Your task to perform on an android device: Search for pizza restaurants on Maps Image 0: 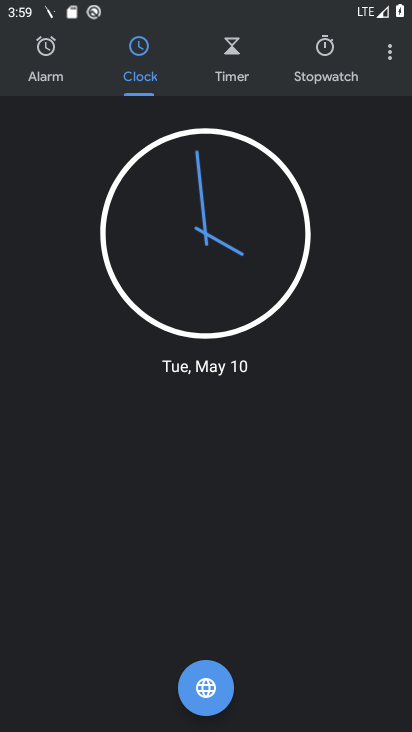
Step 0: press home button
Your task to perform on an android device: Search for pizza restaurants on Maps Image 1: 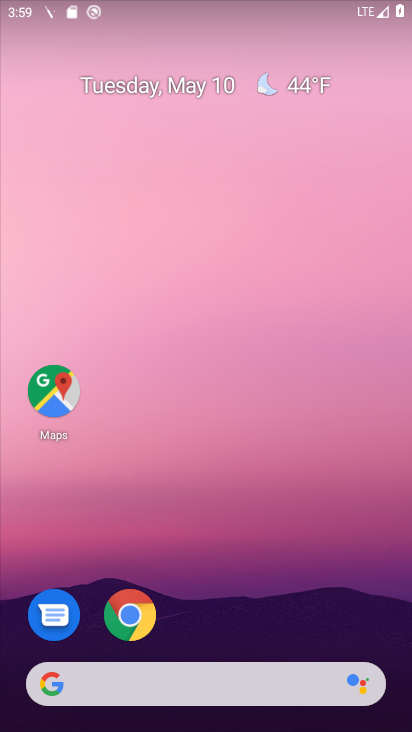
Step 1: drag from (238, 647) to (210, 66)
Your task to perform on an android device: Search for pizza restaurants on Maps Image 2: 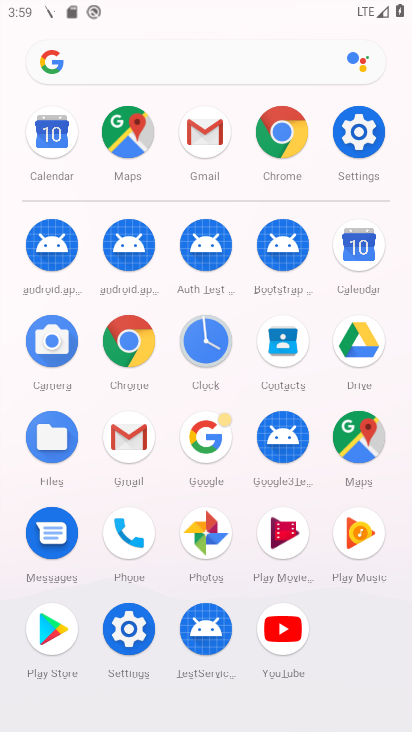
Step 2: click (352, 450)
Your task to perform on an android device: Search for pizza restaurants on Maps Image 3: 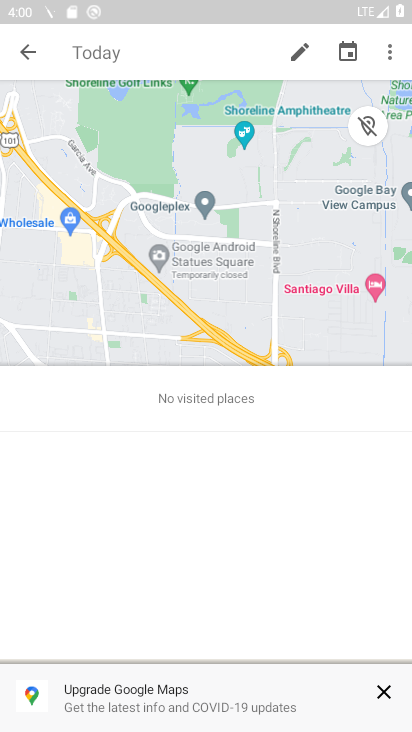
Step 3: press back button
Your task to perform on an android device: Search for pizza restaurants on Maps Image 4: 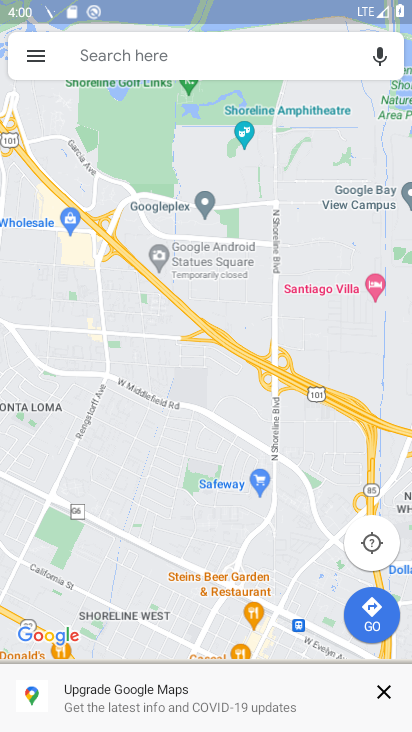
Step 4: click (278, 57)
Your task to perform on an android device: Search for pizza restaurants on Maps Image 5: 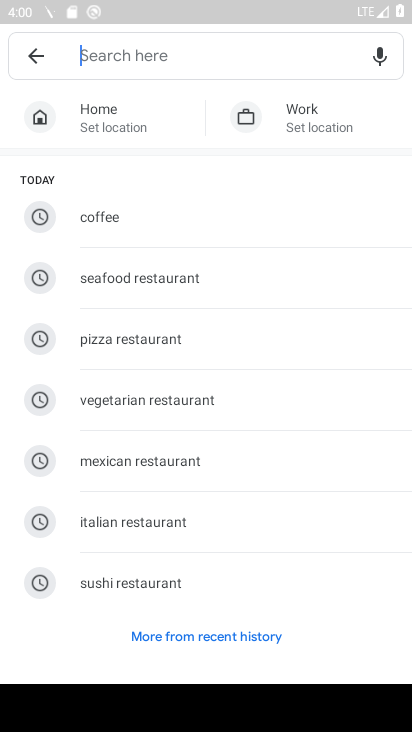
Step 5: type "pizza restaurant"
Your task to perform on an android device: Search for pizza restaurants on Maps Image 6: 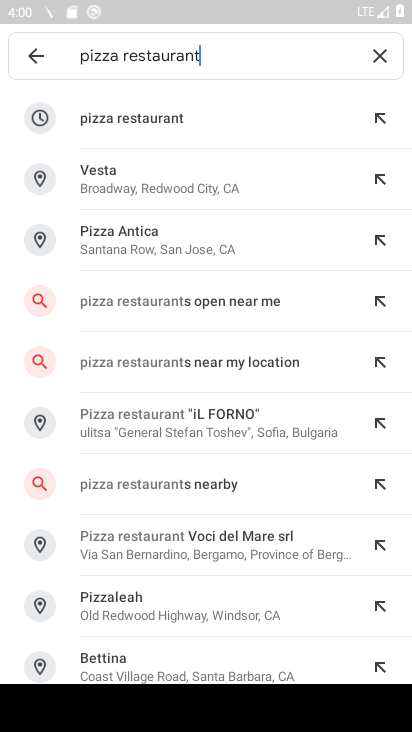
Step 6: click (137, 115)
Your task to perform on an android device: Search for pizza restaurants on Maps Image 7: 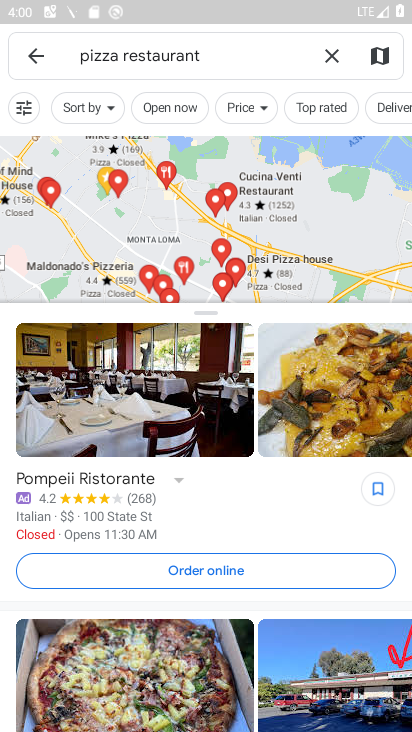
Step 7: task complete